Your task to perform on an android device: turn on sleep mode Image 0: 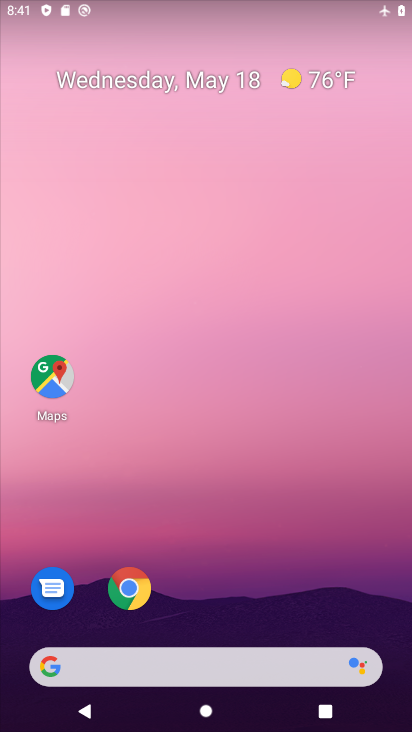
Step 0: drag from (238, 613) to (236, 371)
Your task to perform on an android device: turn on sleep mode Image 1: 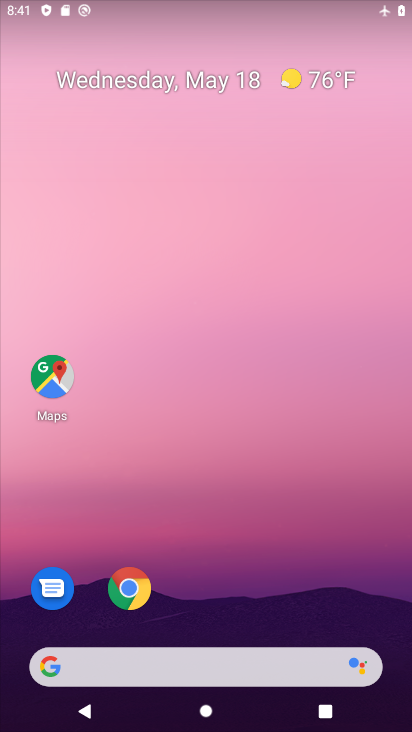
Step 1: drag from (258, 597) to (301, 218)
Your task to perform on an android device: turn on sleep mode Image 2: 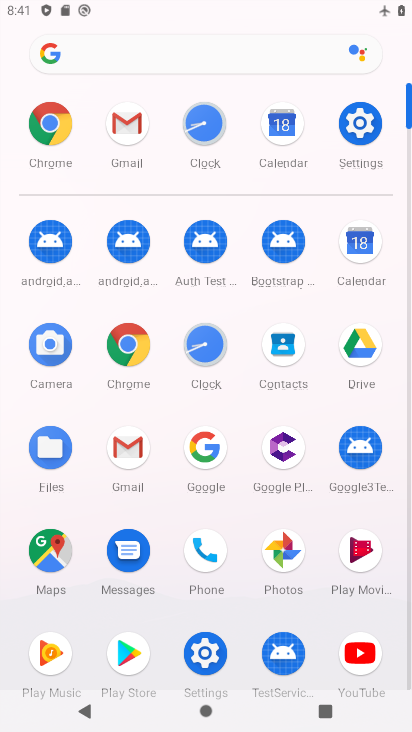
Step 2: click (361, 140)
Your task to perform on an android device: turn on sleep mode Image 3: 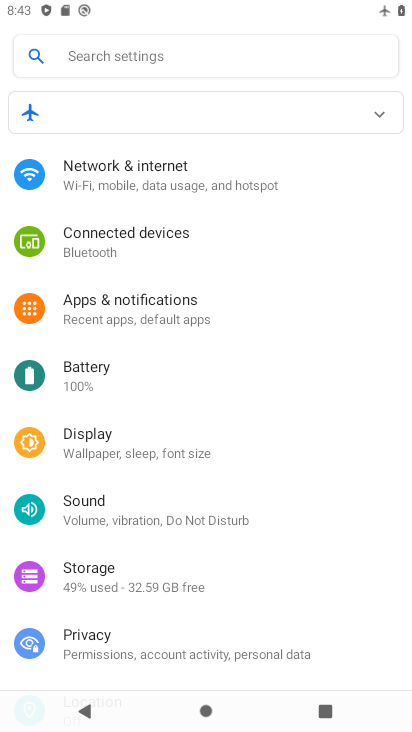
Step 3: click (180, 449)
Your task to perform on an android device: turn on sleep mode Image 4: 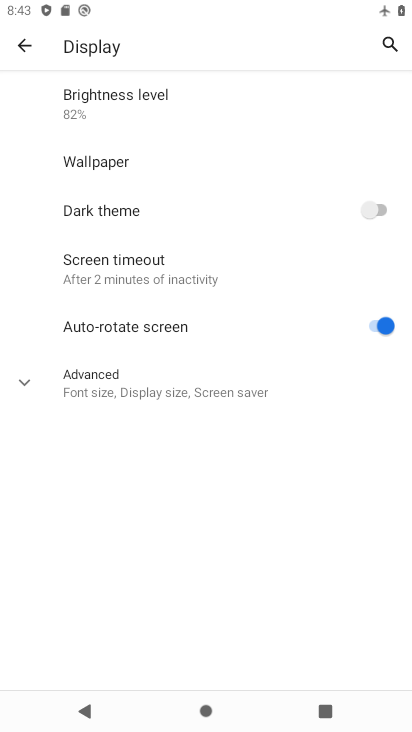
Step 4: click (301, 274)
Your task to perform on an android device: turn on sleep mode Image 5: 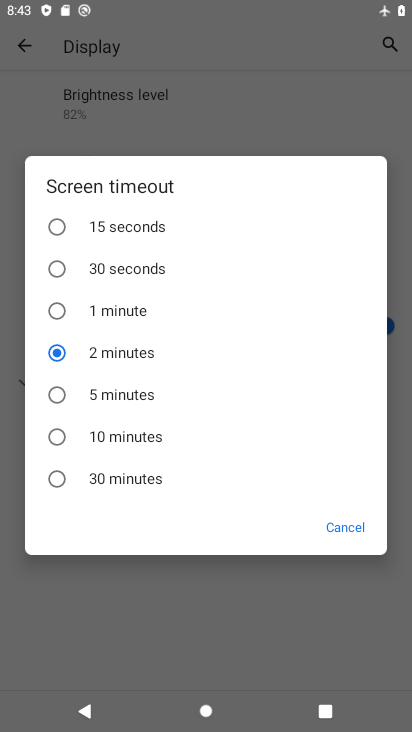
Step 5: click (201, 266)
Your task to perform on an android device: turn on sleep mode Image 6: 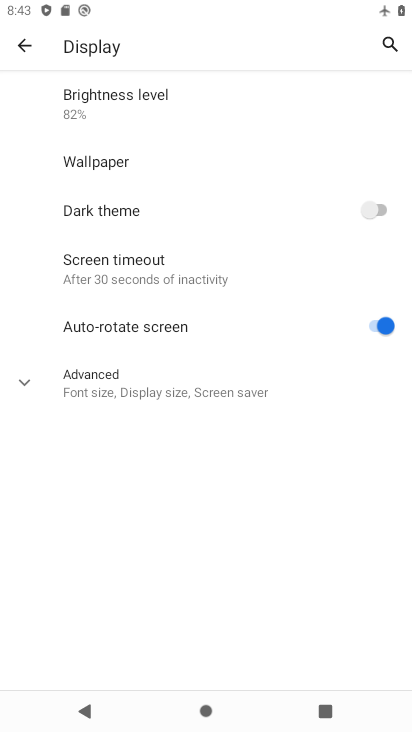
Step 6: task complete